Your task to perform on an android device: turn off priority inbox in the gmail app Image 0: 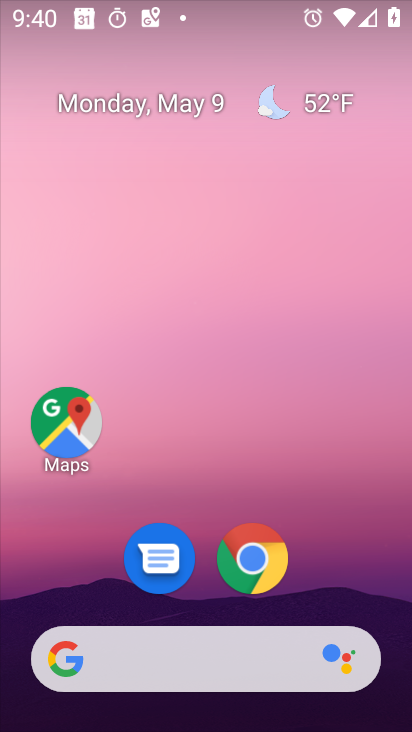
Step 0: drag from (212, 612) to (255, 6)
Your task to perform on an android device: turn off priority inbox in the gmail app Image 1: 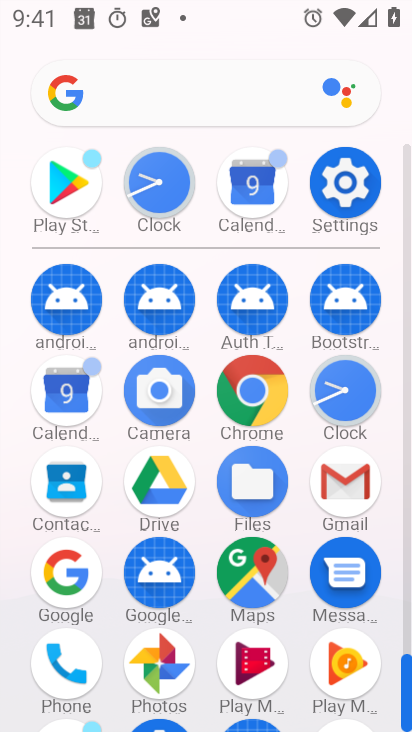
Step 1: click (339, 473)
Your task to perform on an android device: turn off priority inbox in the gmail app Image 2: 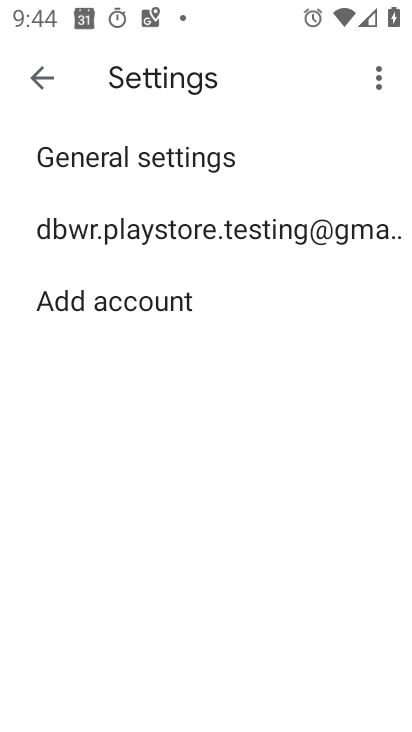
Step 2: click (138, 232)
Your task to perform on an android device: turn off priority inbox in the gmail app Image 3: 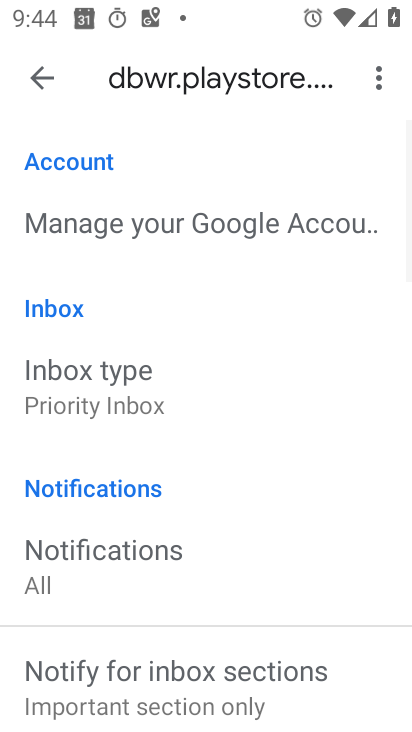
Step 3: click (127, 410)
Your task to perform on an android device: turn off priority inbox in the gmail app Image 4: 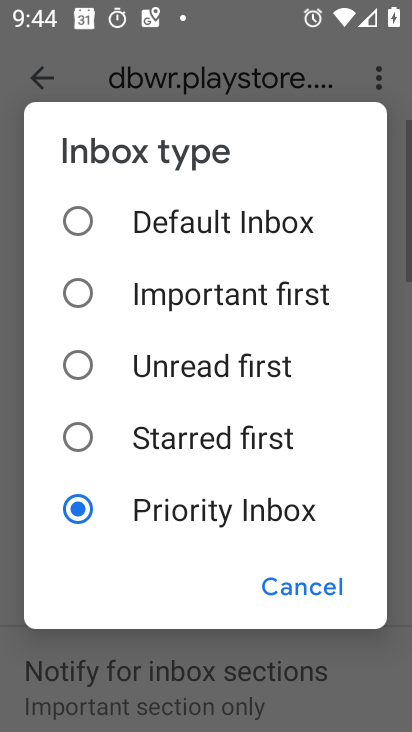
Step 4: click (83, 217)
Your task to perform on an android device: turn off priority inbox in the gmail app Image 5: 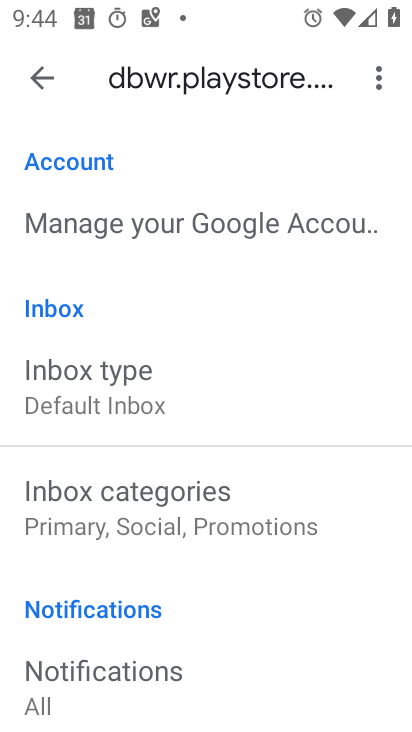
Step 5: task complete